Your task to perform on an android device: Go to internet settings Image 0: 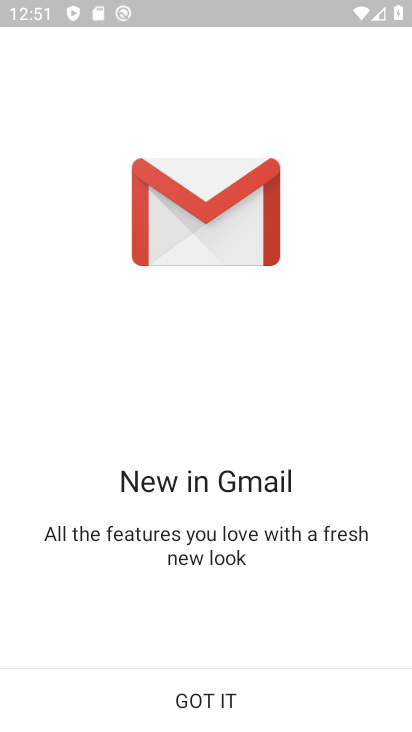
Step 0: press back button
Your task to perform on an android device: Go to internet settings Image 1: 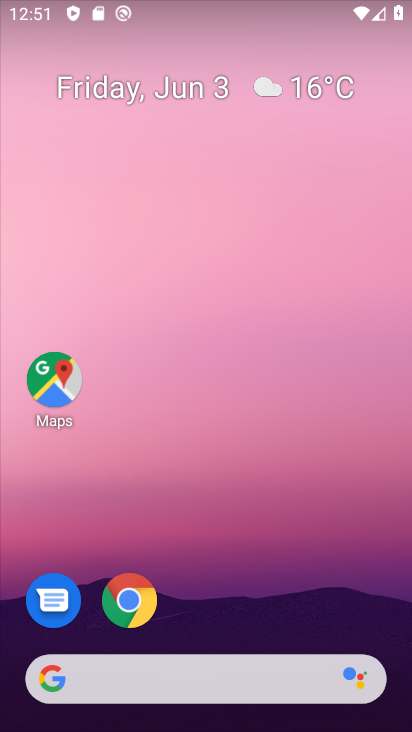
Step 1: drag from (232, 502) to (153, 4)
Your task to perform on an android device: Go to internet settings Image 2: 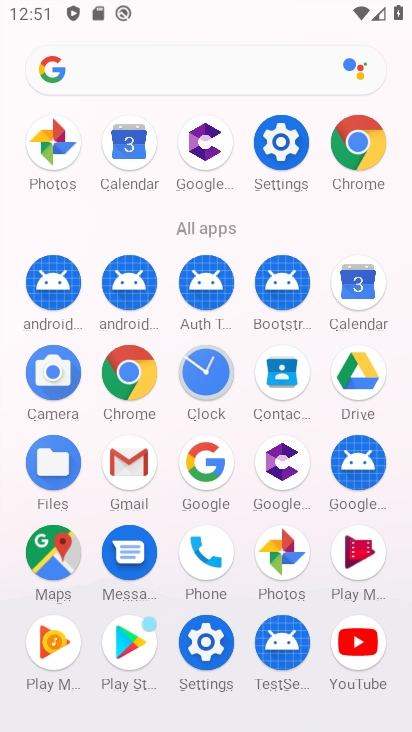
Step 2: drag from (14, 517) to (17, 149)
Your task to perform on an android device: Go to internet settings Image 3: 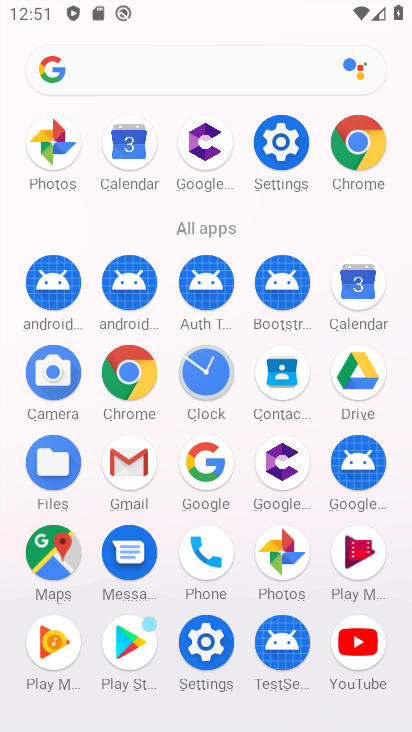
Step 3: click (207, 638)
Your task to perform on an android device: Go to internet settings Image 4: 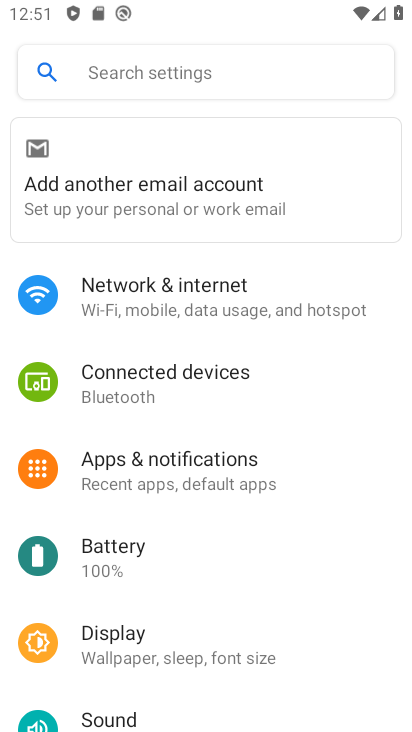
Step 4: click (161, 300)
Your task to perform on an android device: Go to internet settings Image 5: 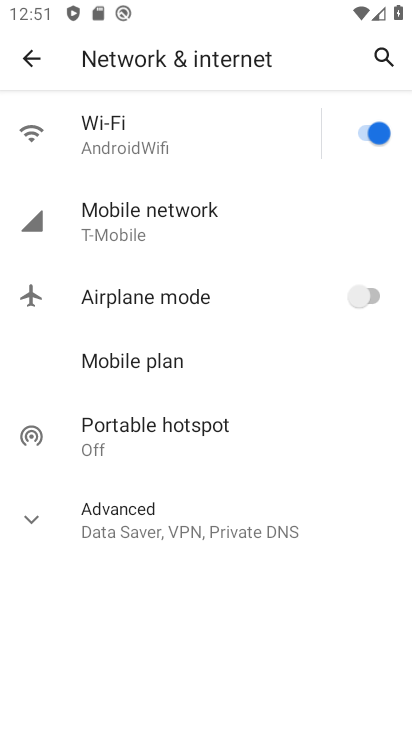
Step 5: click (49, 508)
Your task to perform on an android device: Go to internet settings Image 6: 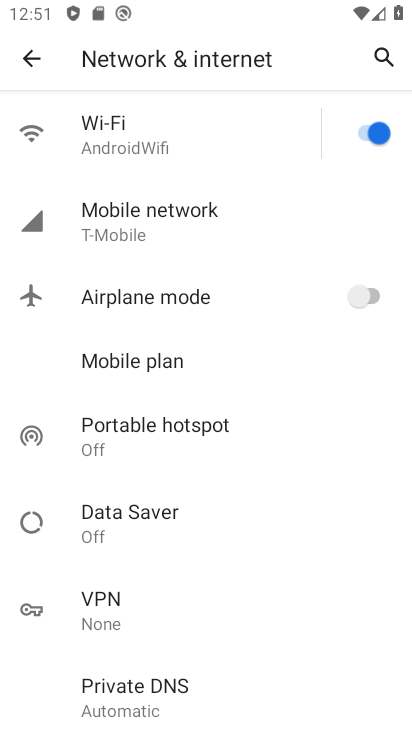
Step 6: task complete